Your task to perform on an android device: When is my next meeting? Image 0: 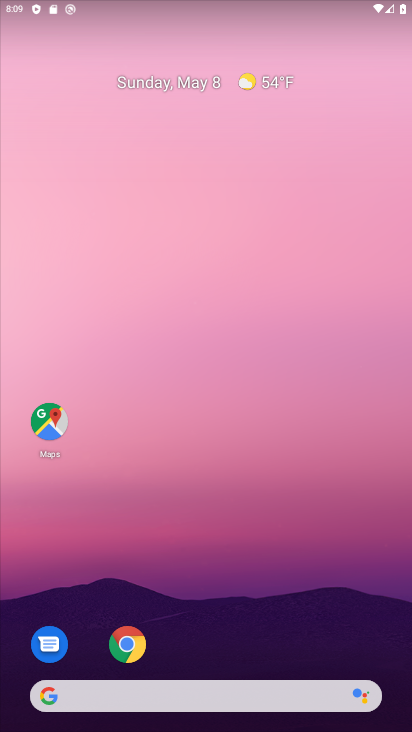
Step 0: drag from (215, 675) to (219, 312)
Your task to perform on an android device: When is my next meeting? Image 1: 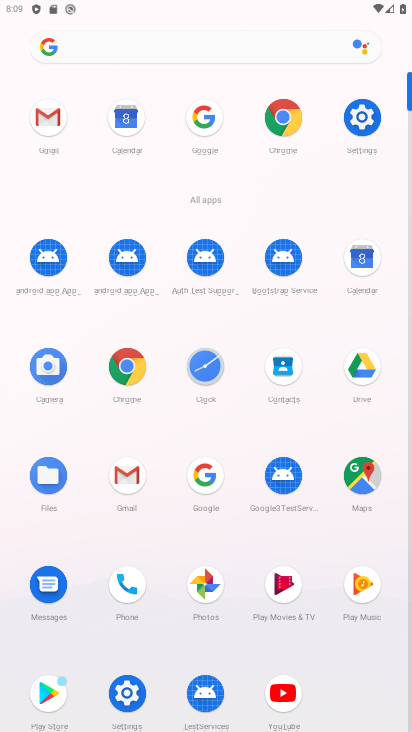
Step 1: click (361, 250)
Your task to perform on an android device: When is my next meeting? Image 2: 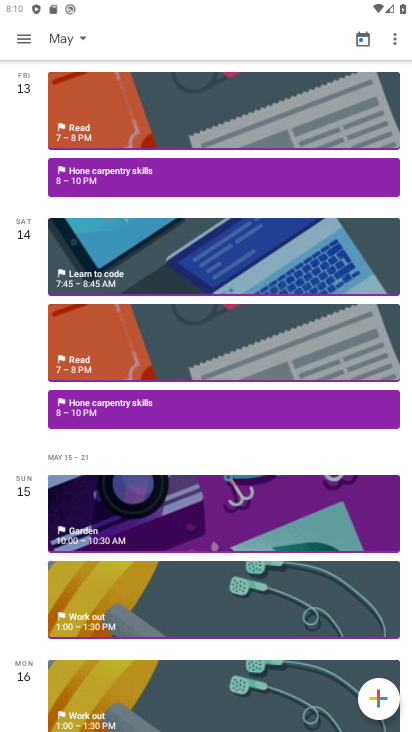
Step 2: click (15, 45)
Your task to perform on an android device: When is my next meeting? Image 3: 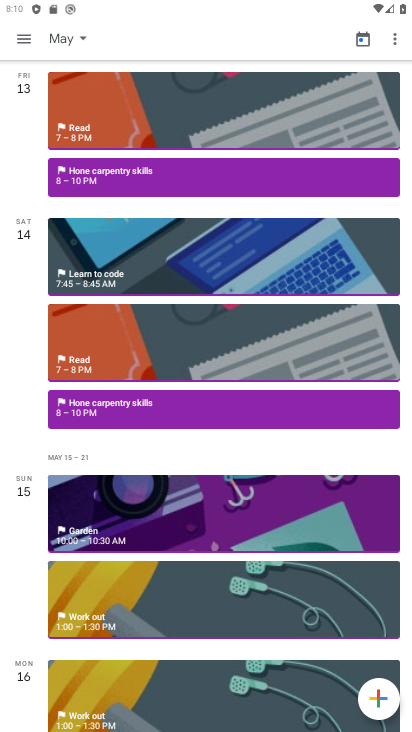
Step 3: click (19, 36)
Your task to perform on an android device: When is my next meeting? Image 4: 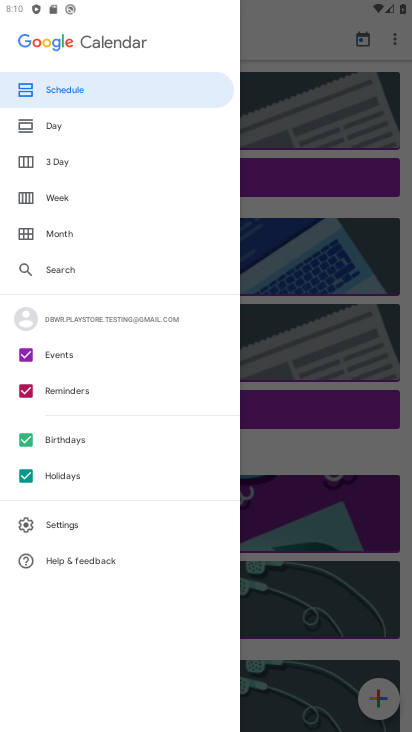
Step 4: click (58, 91)
Your task to perform on an android device: When is my next meeting? Image 5: 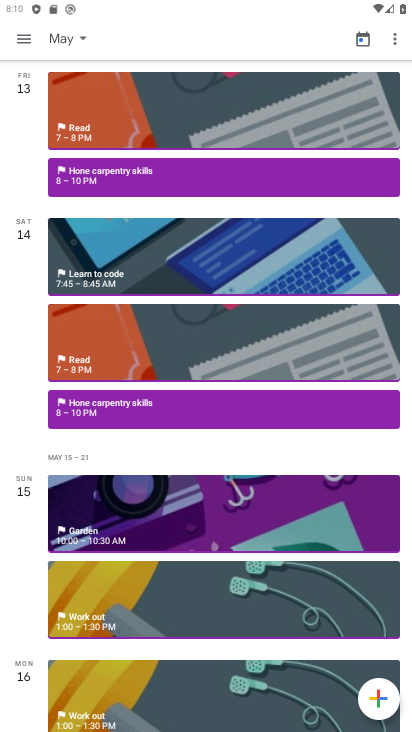
Step 5: task complete